Your task to perform on an android device: turn on notifications settings in the gmail app Image 0: 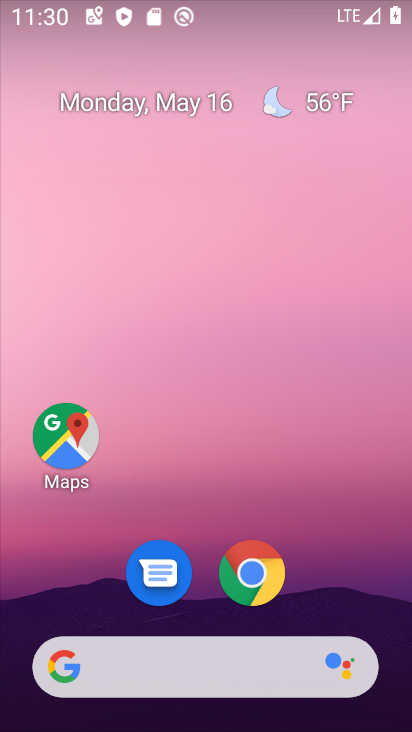
Step 0: drag from (206, 722) to (292, 133)
Your task to perform on an android device: turn on notifications settings in the gmail app Image 1: 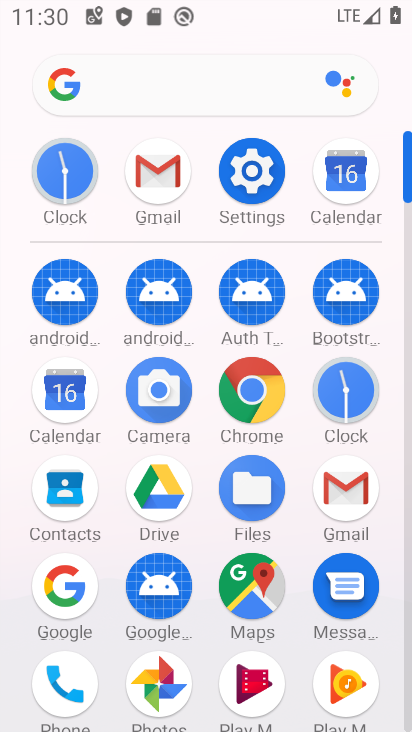
Step 1: click (368, 489)
Your task to perform on an android device: turn on notifications settings in the gmail app Image 2: 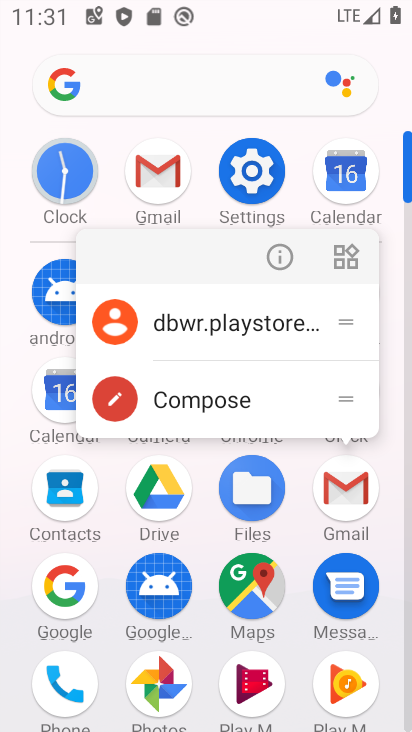
Step 2: click (290, 262)
Your task to perform on an android device: turn on notifications settings in the gmail app Image 3: 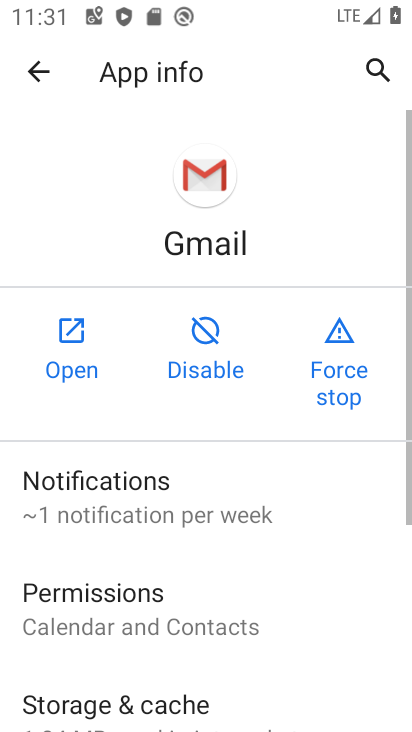
Step 3: click (350, 507)
Your task to perform on an android device: turn on notifications settings in the gmail app Image 4: 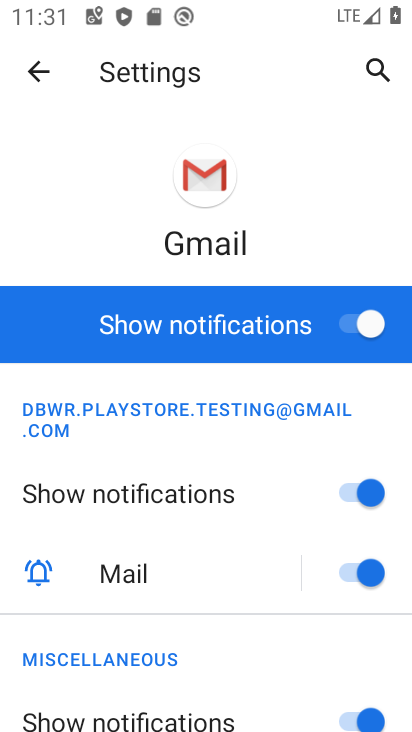
Step 4: task complete